Your task to perform on an android device: What is the capital of Sweden? Image 0: 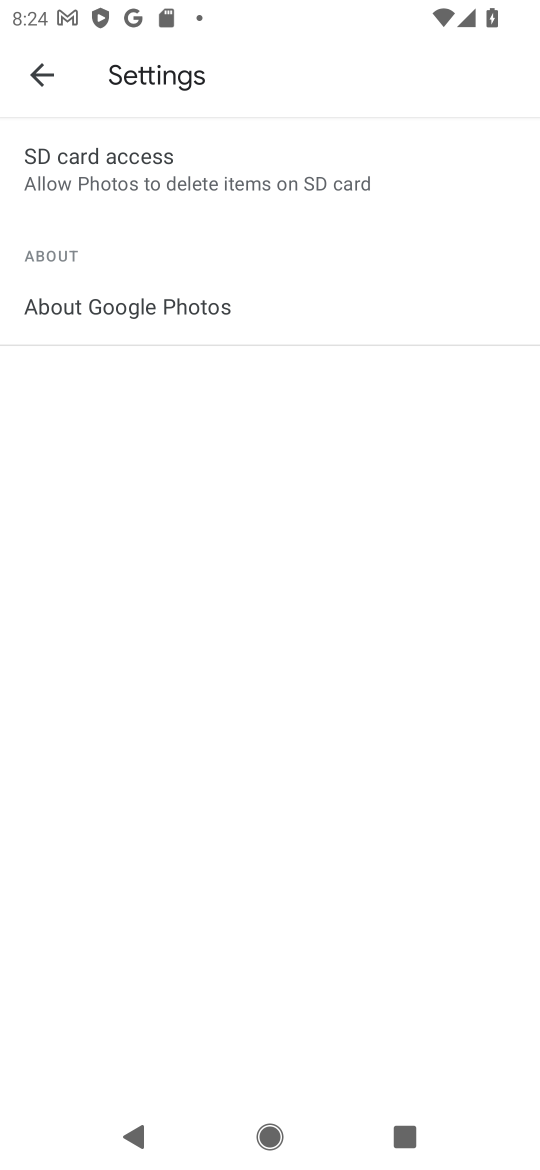
Step 0: press home button
Your task to perform on an android device: What is the capital of Sweden? Image 1: 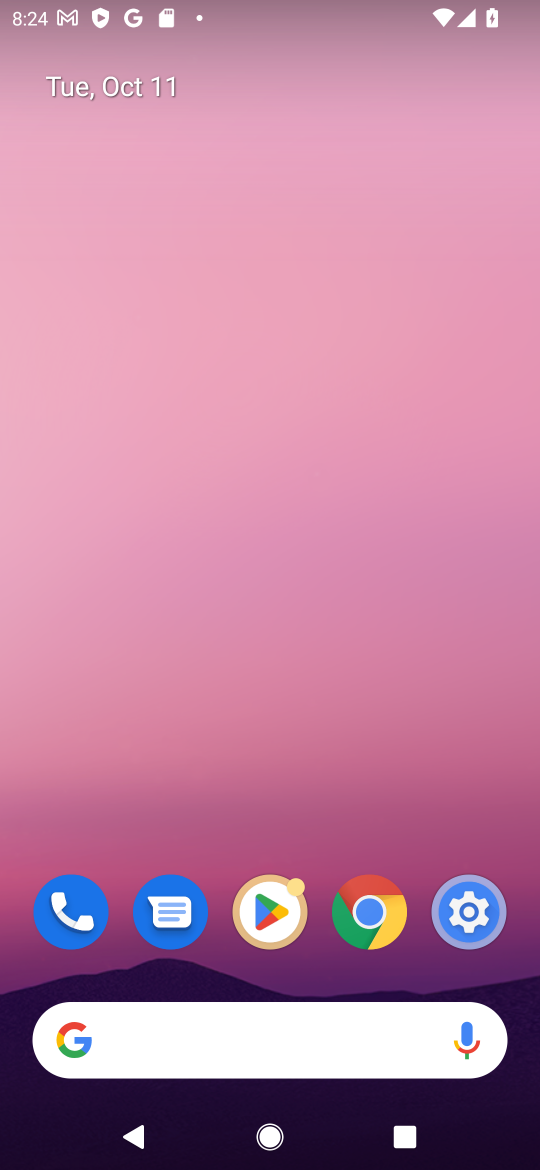
Step 1: click (374, 908)
Your task to perform on an android device: What is the capital of Sweden? Image 2: 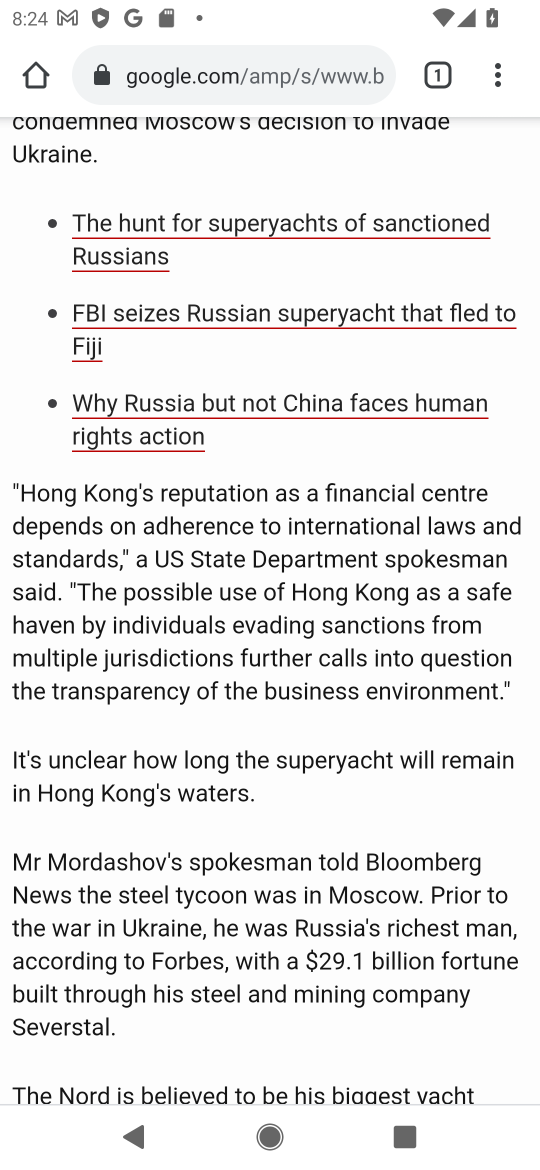
Step 2: click (230, 51)
Your task to perform on an android device: What is the capital of Sweden? Image 3: 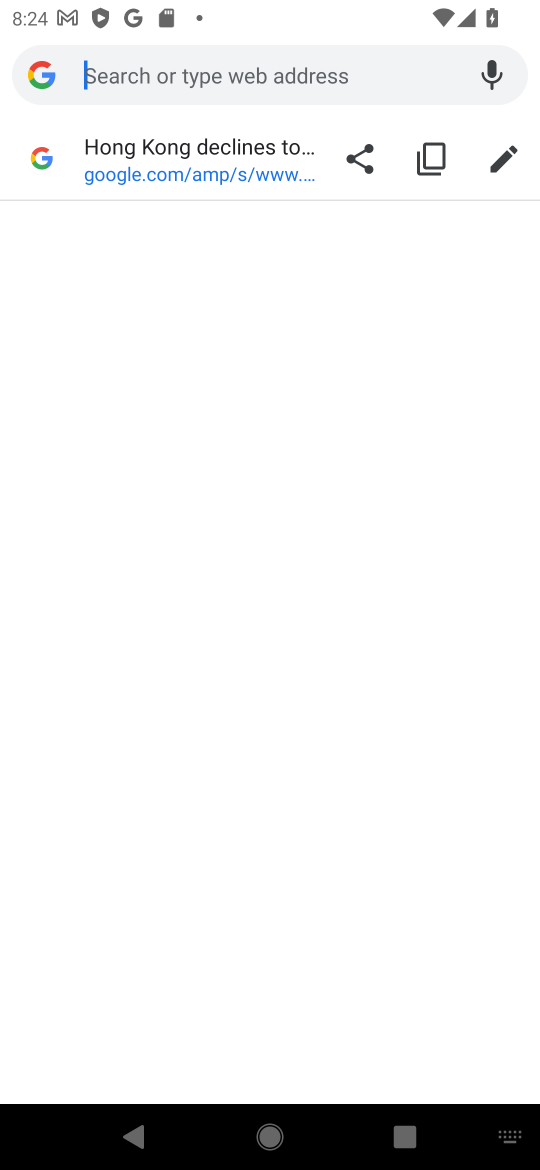
Step 3: type "capital of sweden?"
Your task to perform on an android device: What is the capital of Sweden? Image 4: 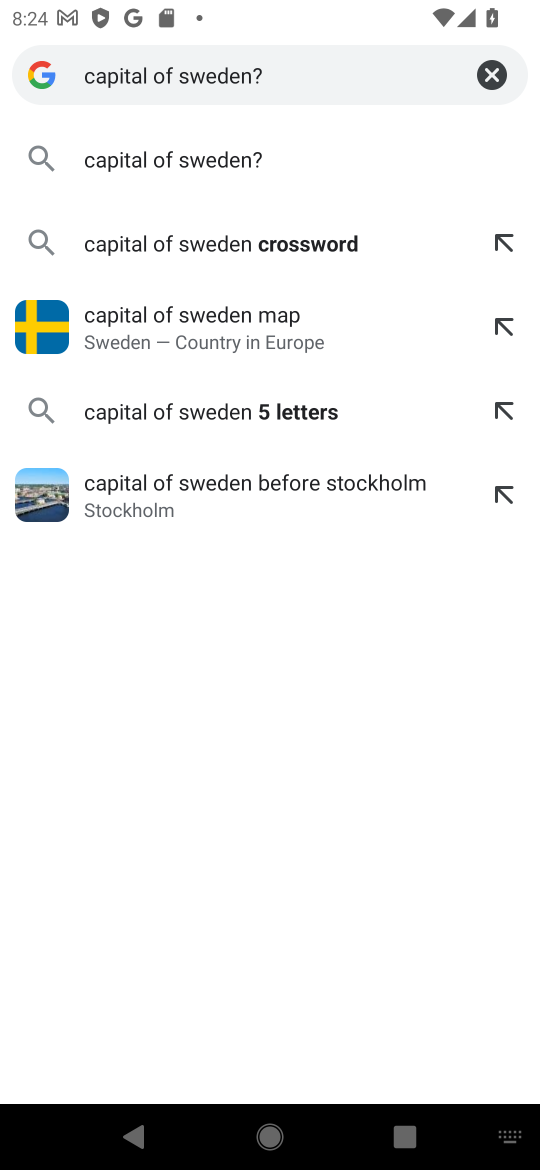
Step 4: click (153, 156)
Your task to perform on an android device: What is the capital of Sweden? Image 5: 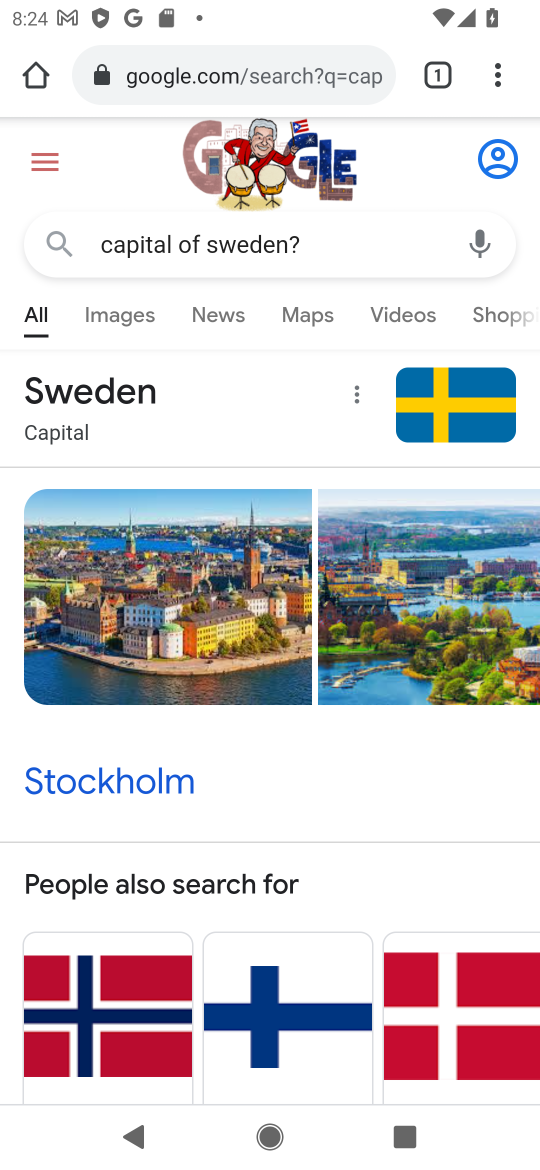
Step 5: task complete